Your task to perform on an android device: turn on bluetooth scan Image 0: 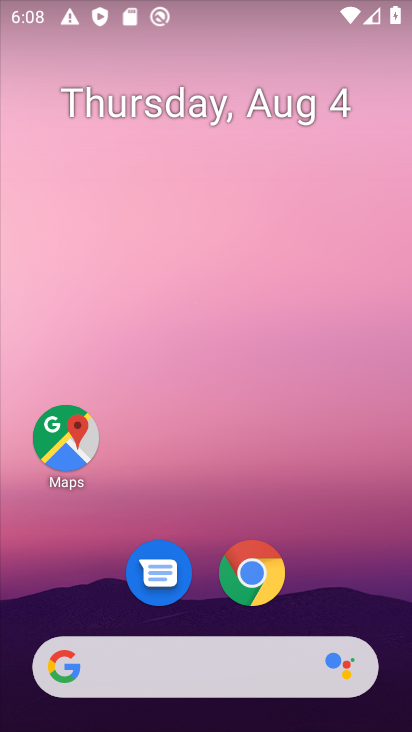
Step 0: press home button
Your task to perform on an android device: turn on bluetooth scan Image 1: 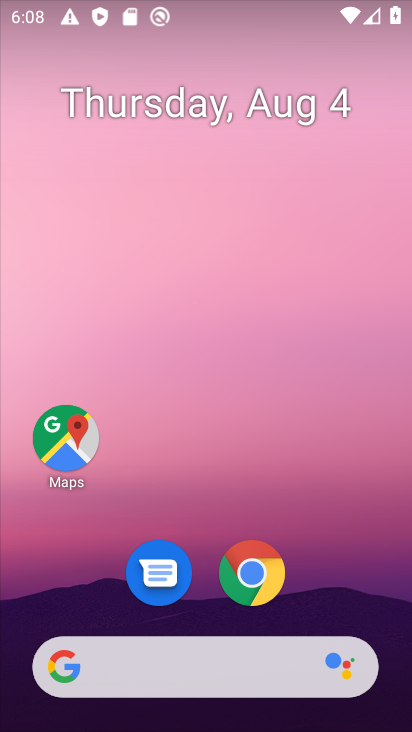
Step 1: press home button
Your task to perform on an android device: turn on bluetooth scan Image 2: 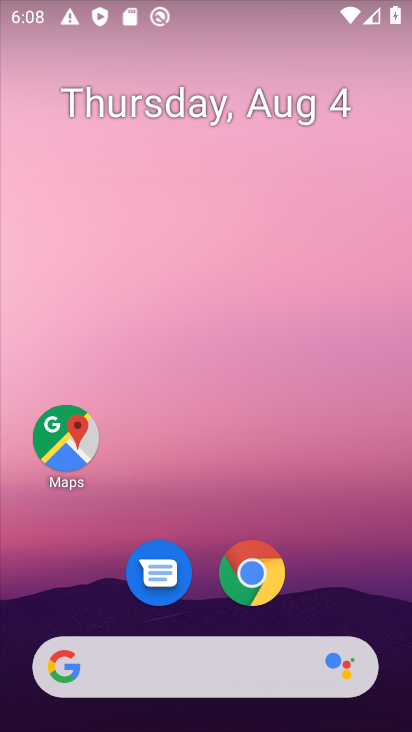
Step 2: drag from (205, 603) to (183, 199)
Your task to perform on an android device: turn on bluetooth scan Image 3: 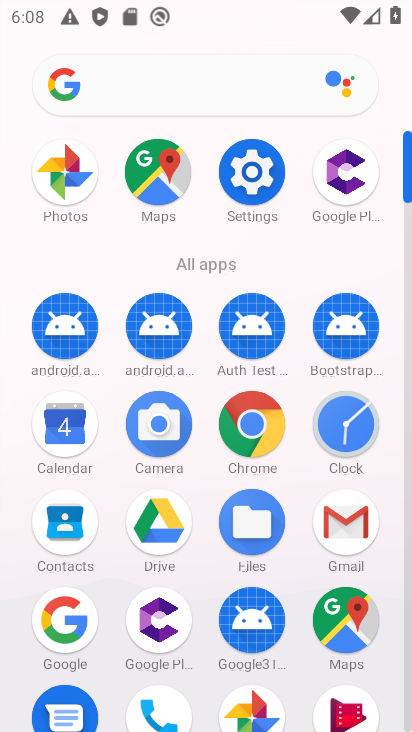
Step 3: click (239, 166)
Your task to perform on an android device: turn on bluetooth scan Image 4: 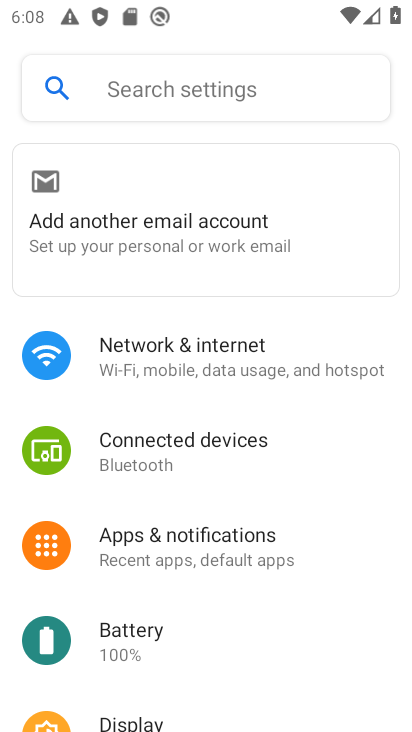
Step 4: drag from (350, 667) to (318, 235)
Your task to perform on an android device: turn on bluetooth scan Image 5: 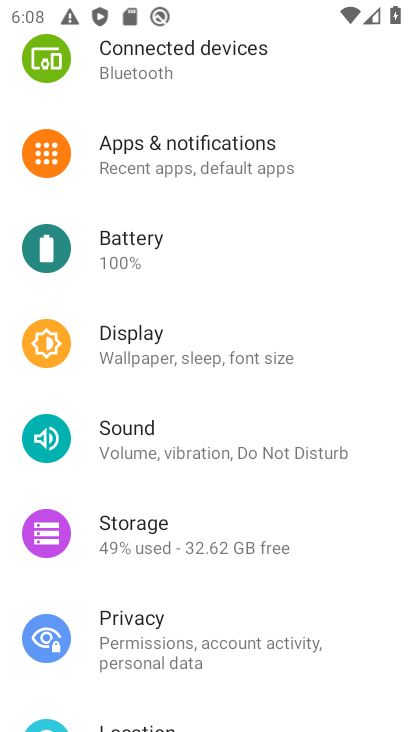
Step 5: drag from (332, 600) to (309, 194)
Your task to perform on an android device: turn on bluetooth scan Image 6: 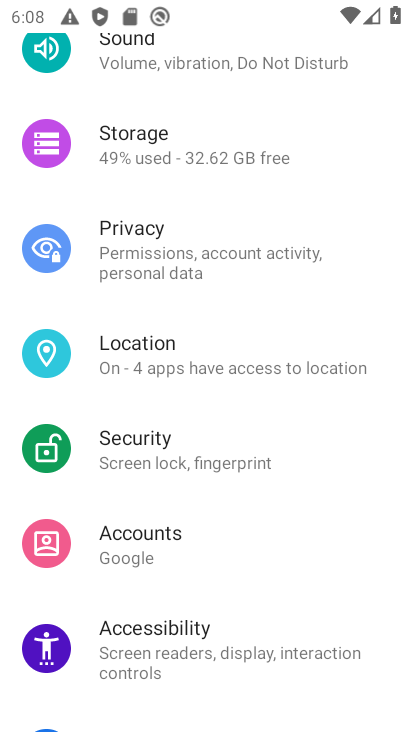
Step 6: click (157, 361)
Your task to perform on an android device: turn on bluetooth scan Image 7: 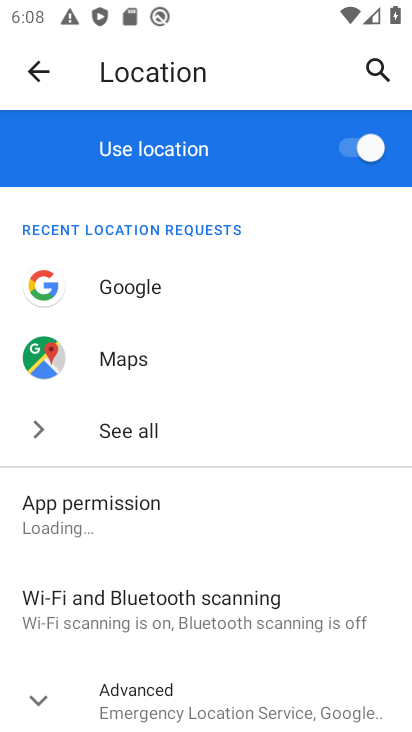
Step 7: click (171, 611)
Your task to perform on an android device: turn on bluetooth scan Image 8: 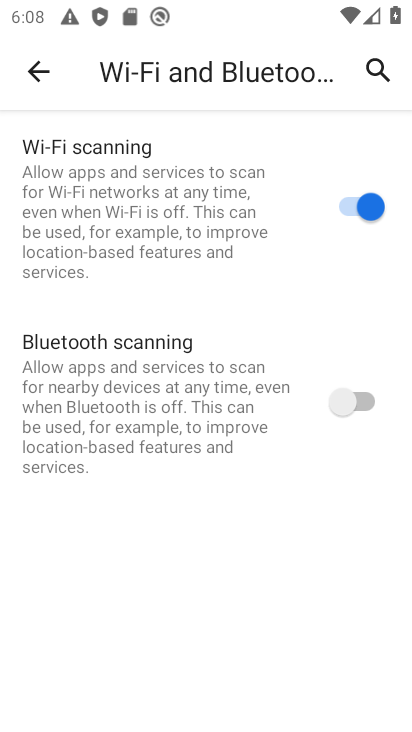
Step 8: click (343, 403)
Your task to perform on an android device: turn on bluetooth scan Image 9: 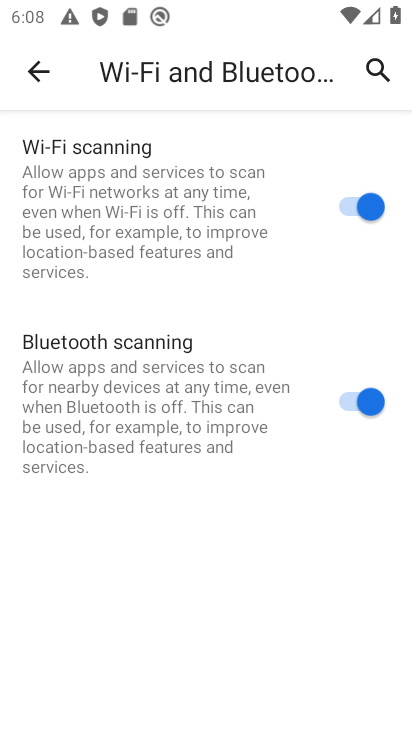
Step 9: task complete